Your task to perform on an android device: Search for "amazon basics triple a" on costco, select the first entry, and add it to the cart. Image 0: 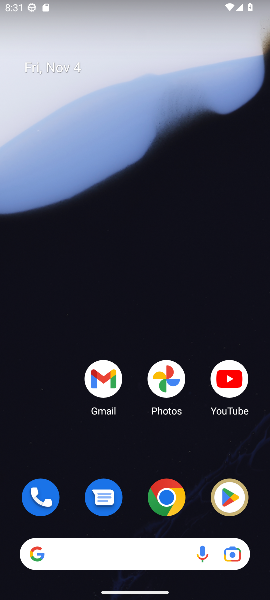
Step 0: click (160, 494)
Your task to perform on an android device: Search for "amazon basics triple a" on costco, select the first entry, and add it to the cart. Image 1: 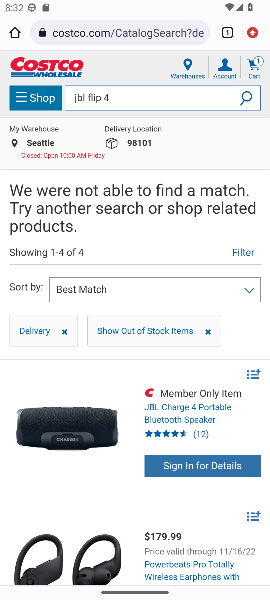
Step 1: click (192, 93)
Your task to perform on an android device: Search for "amazon basics triple a" on costco, select the first entry, and add it to the cart. Image 2: 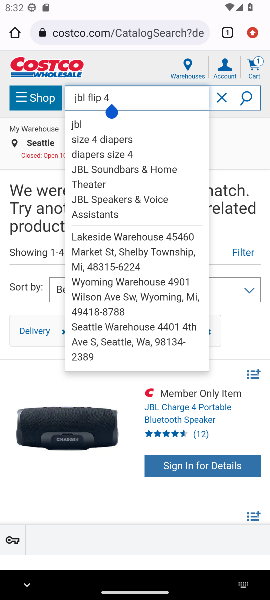
Step 2: click (220, 96)
Your task to perform on an android device: Search for "amazon basics triple a" on costco, select the first entry, and add it to the cart. Image 3: 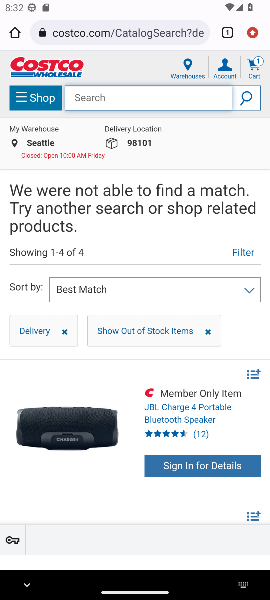
Step 3: type "amazon basics triple a"
Your task to perform on an android device: Search for "amazon basics triple a" on costco, select the first entry, and add it to the cart. Image 4: 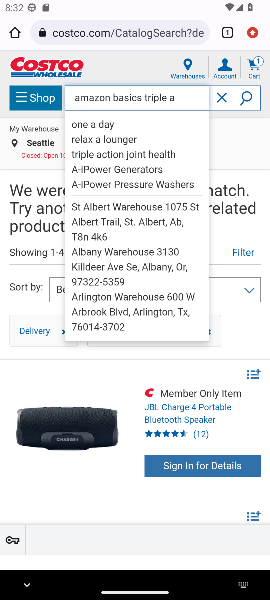
Step 4: click (242, 98)
Your task to perform on an android device: Search for "amazon basics triple a" on costco, select the first entry, and add it to the cart. Image 5: 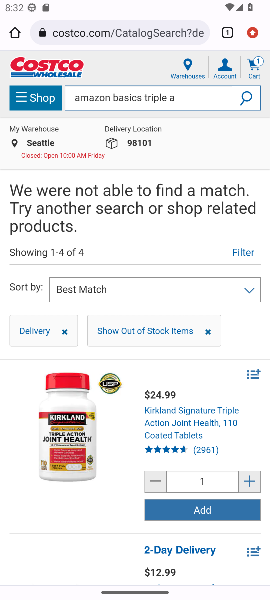
Step 5: task complete